Your task to perform on an android device: Check the news Image 0: 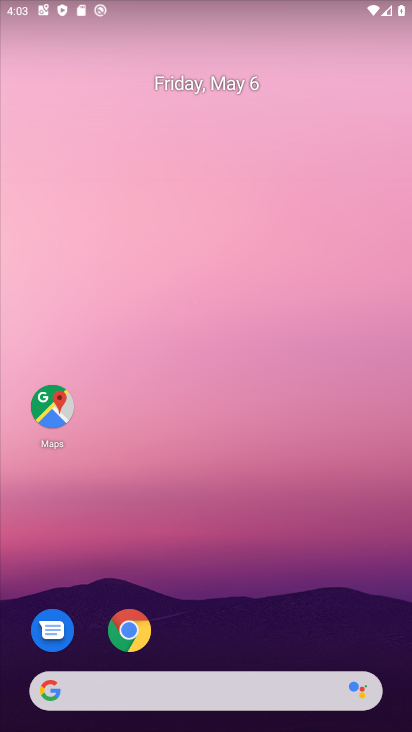
Step 0: click (189, 686)
Your task to perform on an android device: Check the news Image 1: 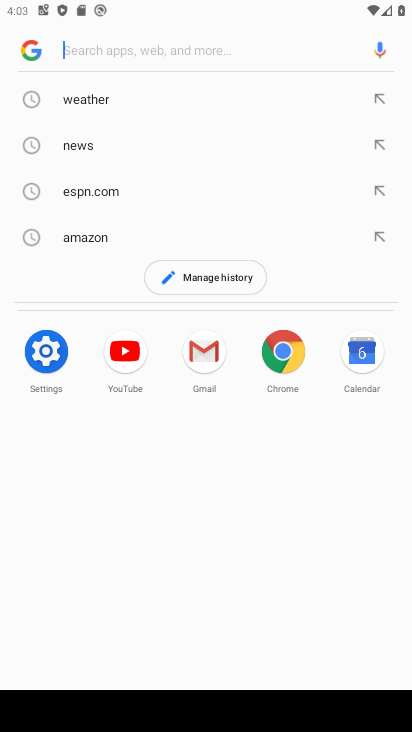
Step 1: click (73, 140)
Your task to perform on an android device: Check the news Image 2: 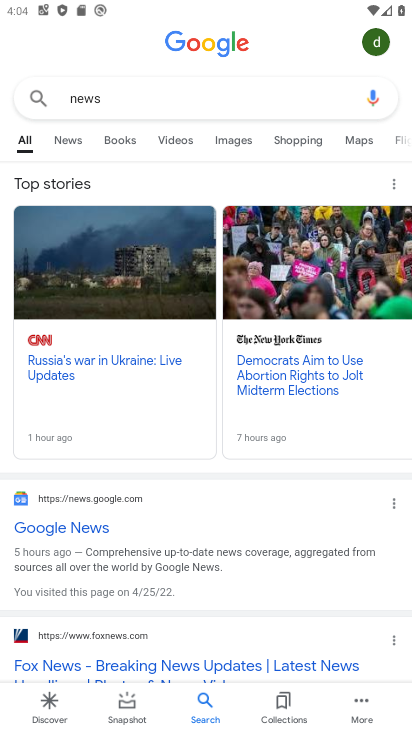
Step 2: click (128, 92)
Your task to perform on an android device: Check the news Image 3: 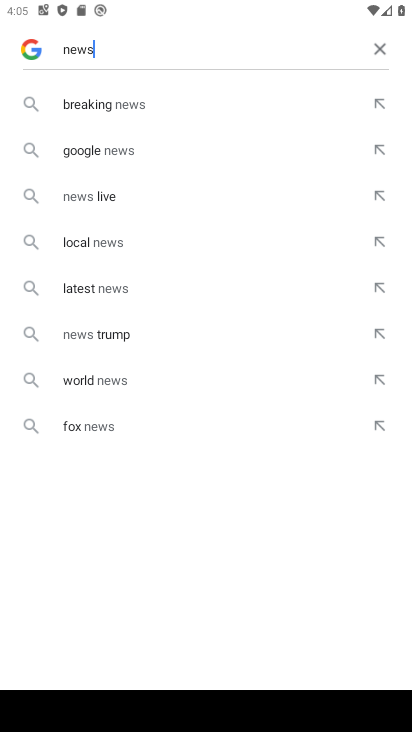
Step 3: click (123, 194)
Your task to perform on an android device: Check the news Image 4: 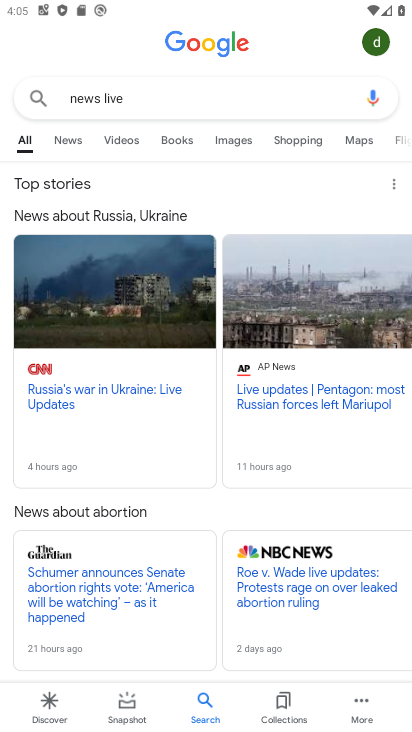
Step 4: task complete